Your task to perform on an android device: create a new album in the google photos Image 0: 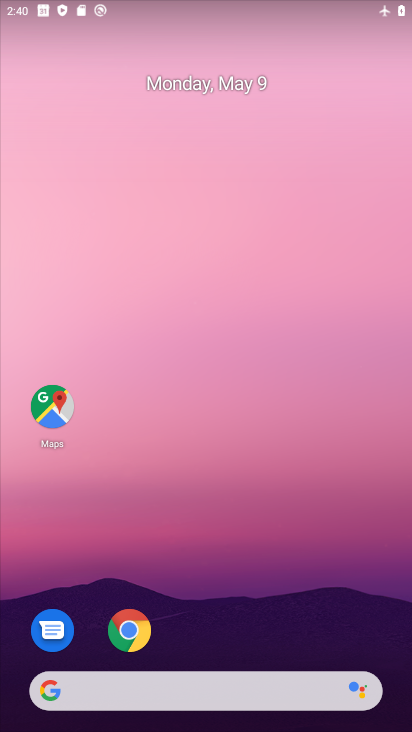
Step 0: drag from (256, 635) to (183, 213)
Your task to perform on an android device: create a new album in the google photos Image 1: 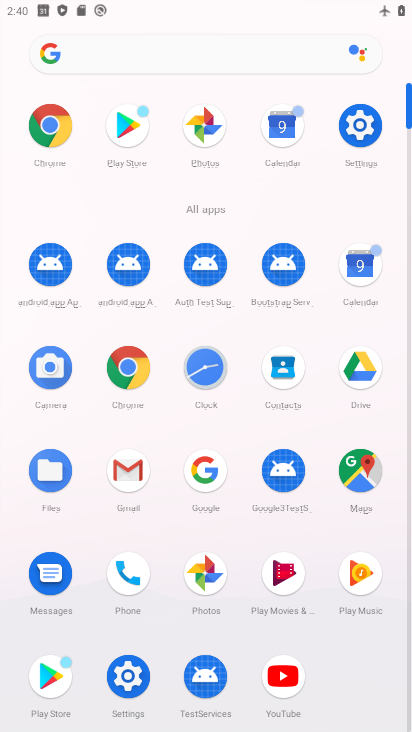
Step 1: click (200, 582)
Your task to perform on an android device: create a new album in the google photos Image 2: 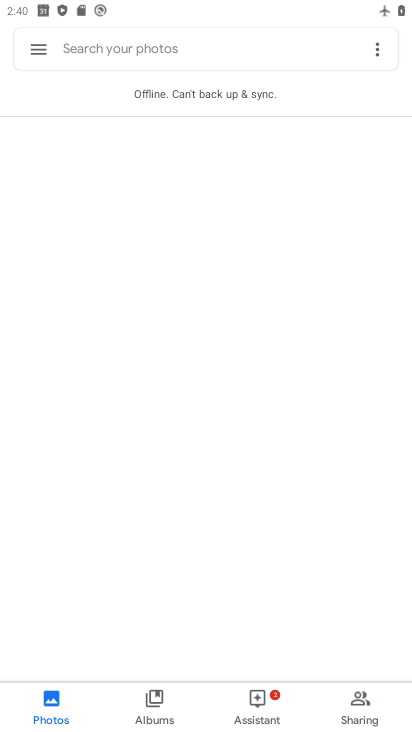
Step 2: click (256, 695)
Your task to perform on an android device: create a new album in the google photos Image 3: 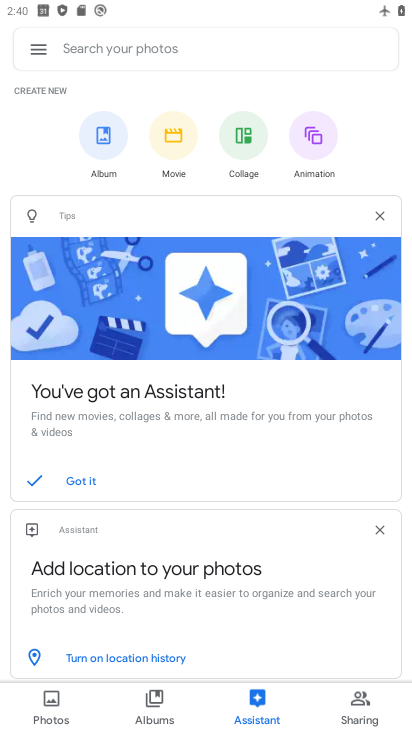
Step 3: click (108, 145)
Your task to perform on an android device: create a new album in the google photos Image 4: 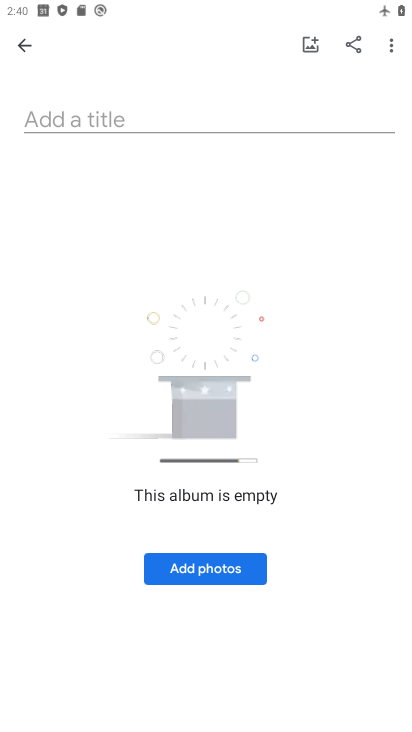
Step 4: click (145, 112)
Your task to perform on an android device: create a new album in the google photos Image 5: 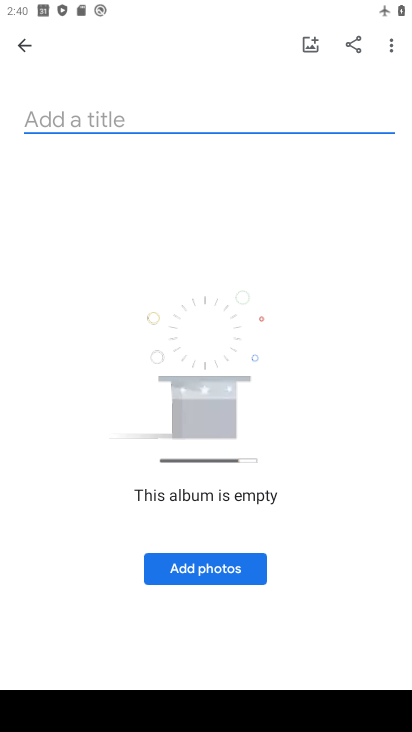
Step 5: type "jkjkbkj"
Your task to perform on an android device: create a new album in the google photos Image 6: 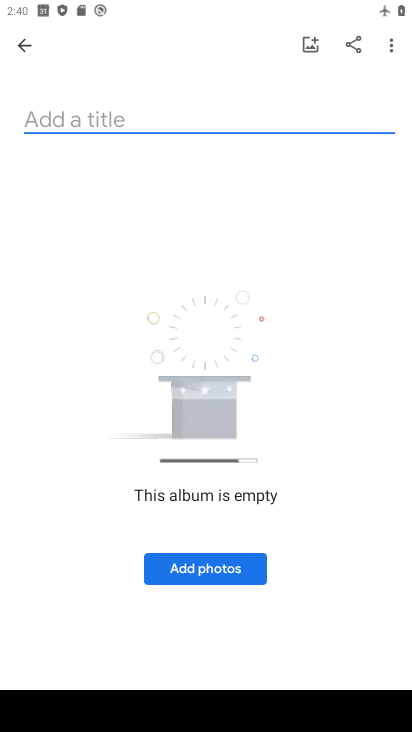
Step 6: click (346, 315)
Your task to perform on an android device: create a new album in the google photos Image 7: 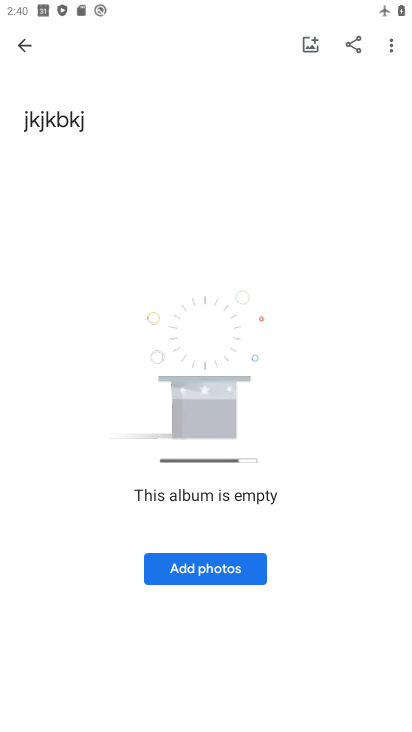
Step 7: click (226, 565)
Your task to perform on an android device: create a new album in the google photos Image 8: 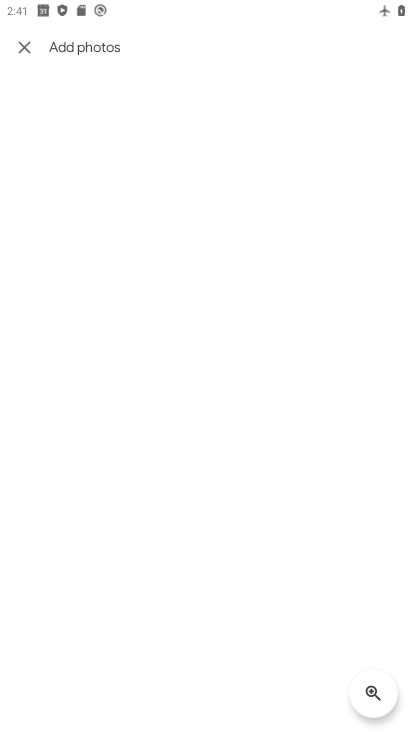
Step 8: task complete